Your task to perform on an android device: manage bookmarks in the chrome app Image 0: 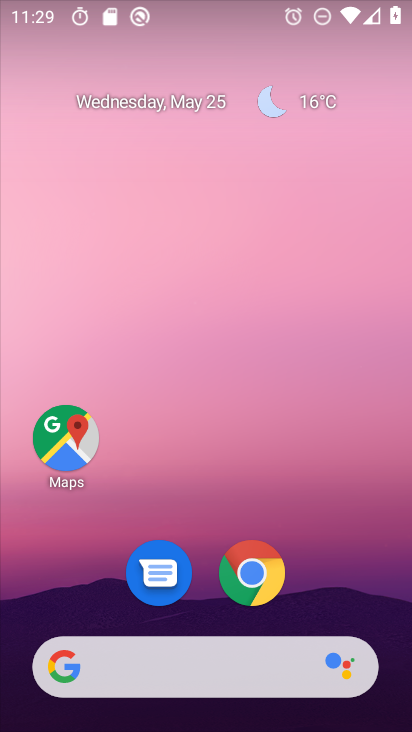
Step 0: click (263, 578)
Your task to perform on an android device: manage bookmarks in the chrome app Image 1: 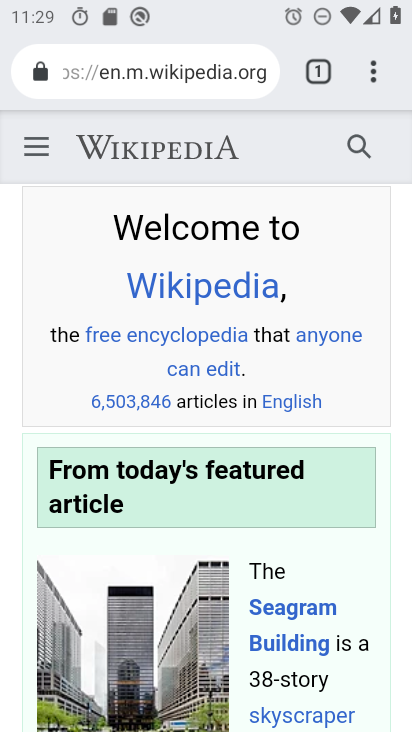
Step 1: click (373, 72)
Your task to perform on an android device: manage bookmarks in the chrome app Image 2: 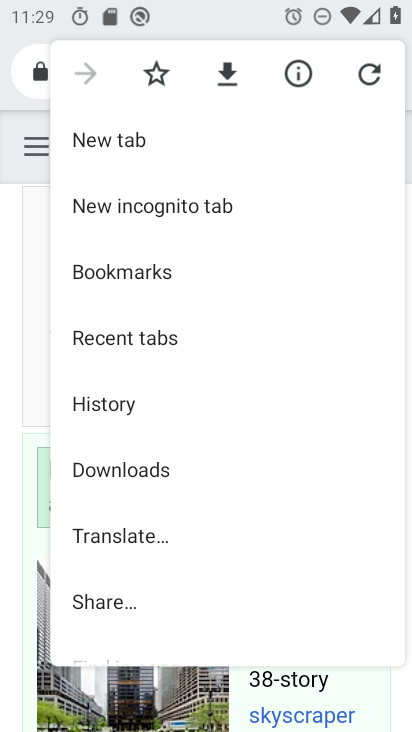
Step 2: click (110, 277)
Your task to perform on an android device: manage bookmarks in the chrome app Image 3: 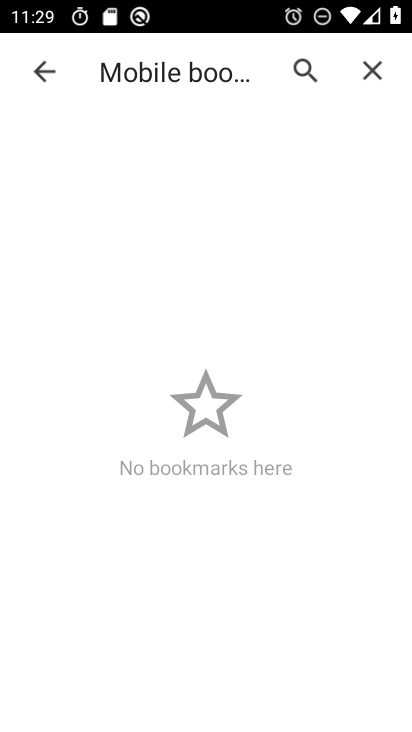
Step 3: task complete